Your task to perform on an android device: clear history in the chrome app Image 0: 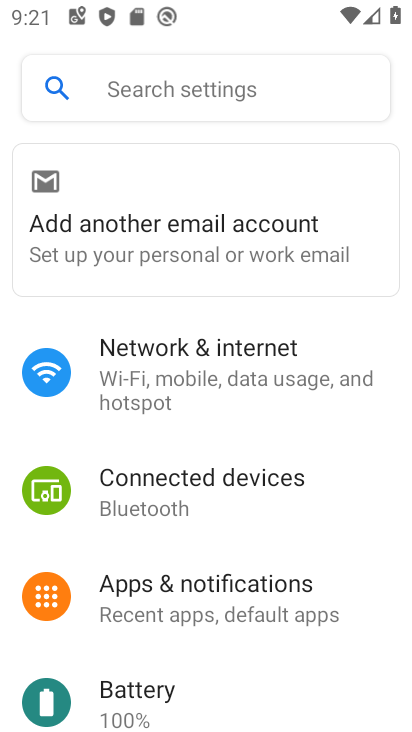
Step 0: press home button
Your task to perform on an android device: clear history in the chrome app Image 1: 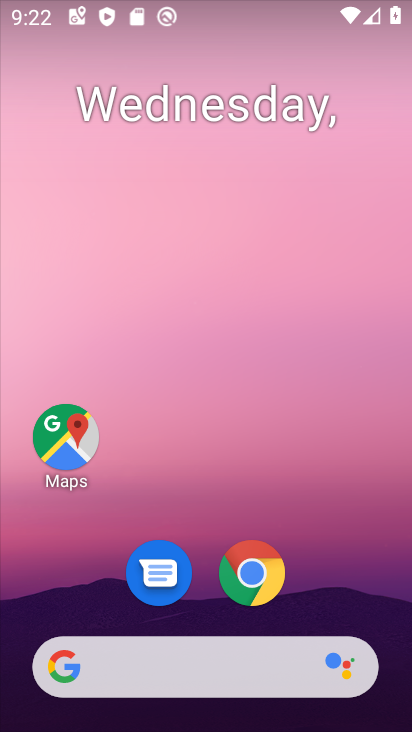
Step 1: click (246, 570)
Your task to perform on an android device: clear history in the chrome app Image 2: 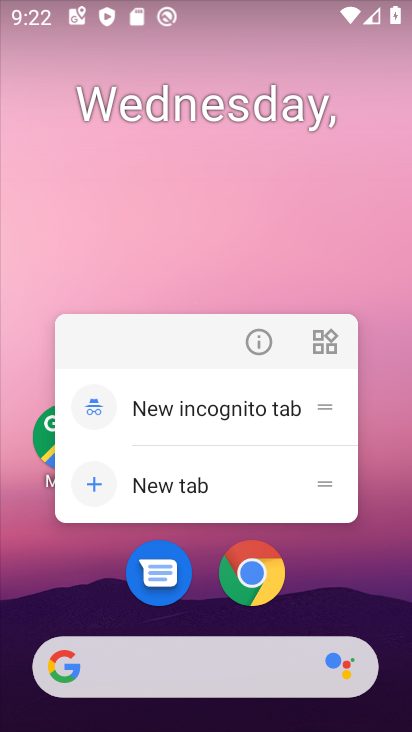
Step 2: click (246, 570)
Your task to perform on an android device: clear history in the chrome app Image 3: 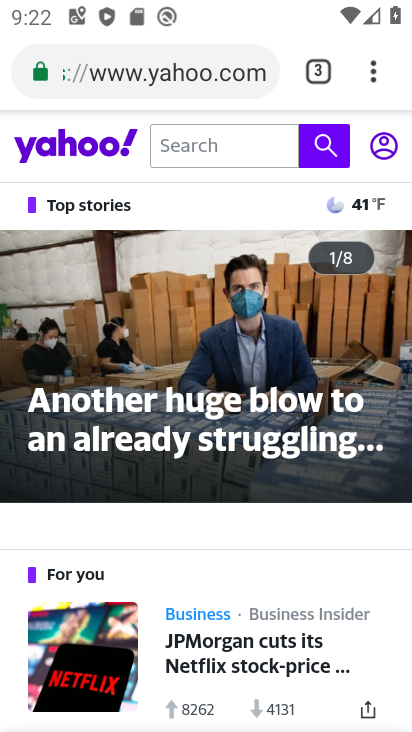
Step 3: click (372, 62)
Your task to perform on an android device: clear history in the chrome app Image 4: 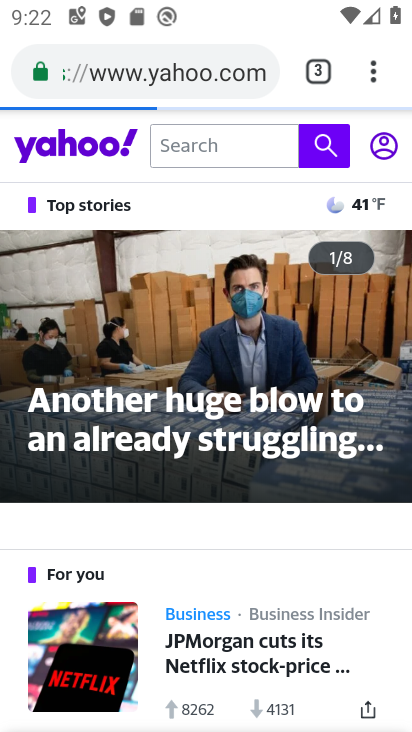
Step 4: click (372, 63)
Your task to perform on an android device: clear history in the chrome app Image 5: 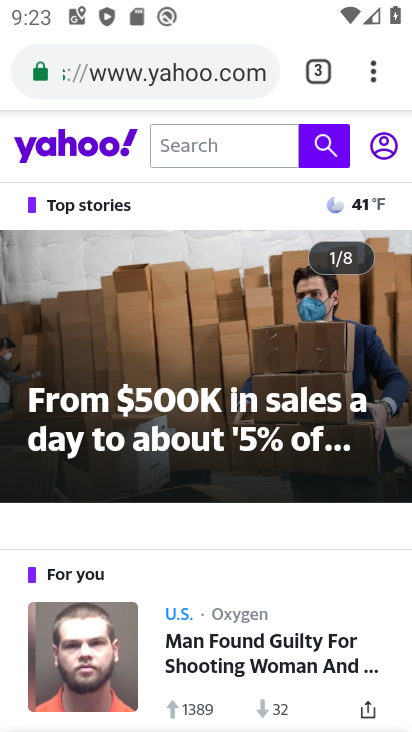
Step 5: click (370, 71)
Your task to perform on an android device: clear history in the chrome app Image 6: 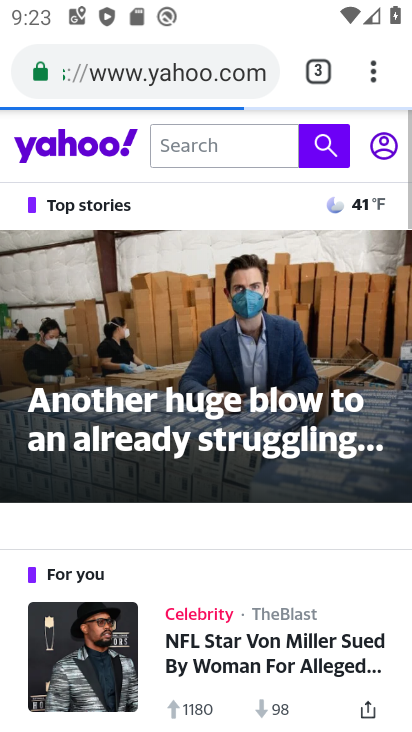
Step 6: click (370, 71)
Your task to perform on an android device: clear history in the chrome app Image 7: 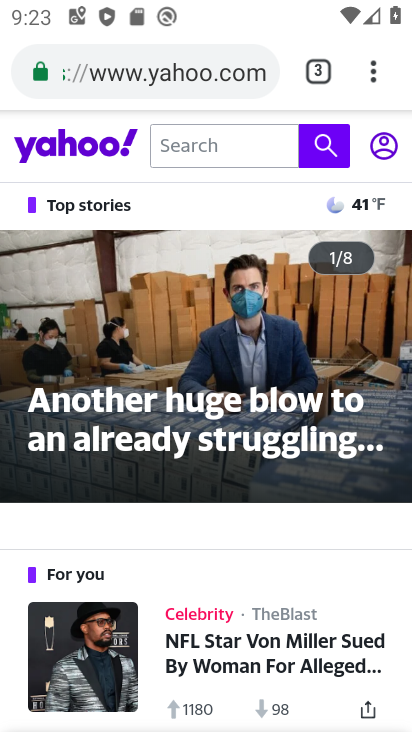
Step 7: click (370, 70)
Your task to perform on an android device: clear history in the chrome app Image 8: 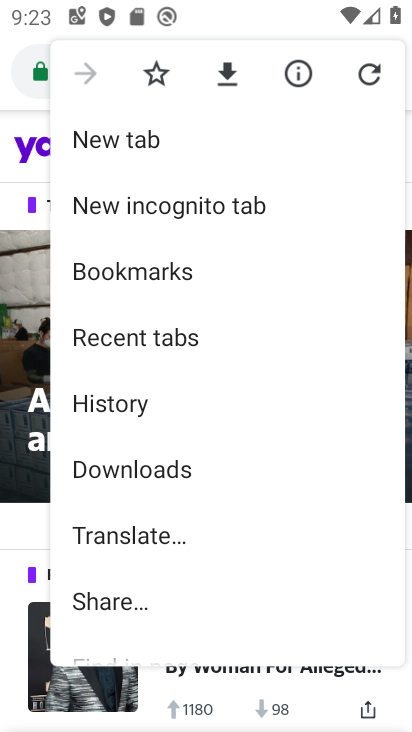
Step 8: click (106, 390)
Your task to perform on an android device: clear history in the chrome app Image 9: 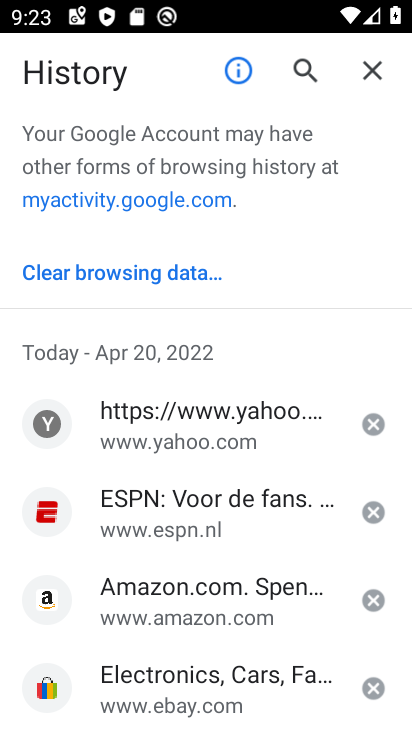
Step 9: click (116, 270)
Your task to perform on an android device: clear history in the chrome app Image 10: 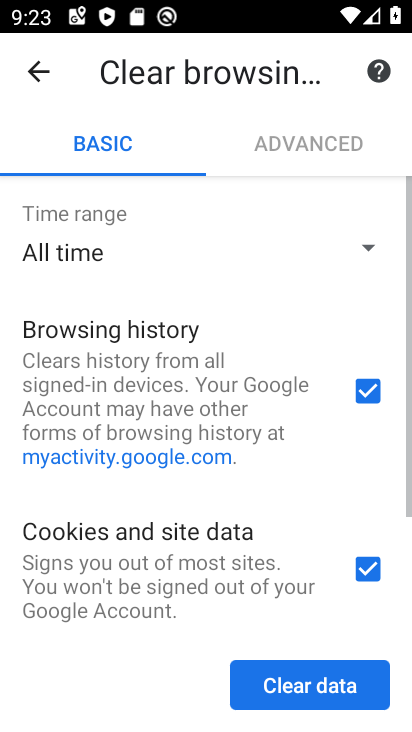
Step 10: click (270, 681)
Your task to perform on an android device: clear history in the chrome app Image 11: 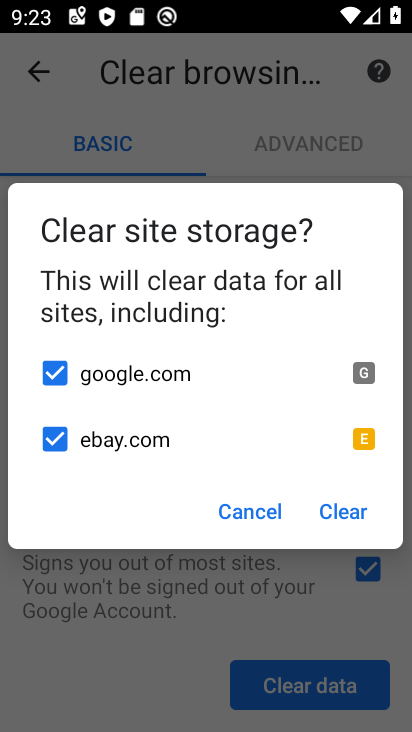
Step 11: click (340, 496)
Your task to perform on an android device: clear history in the chrome app Image 12: 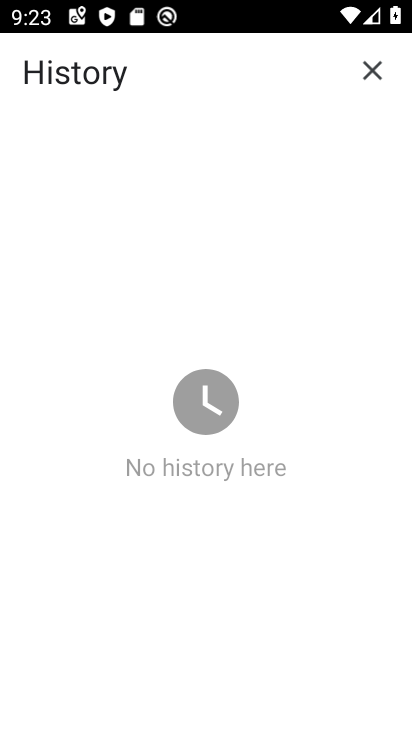
Step 12: task complete